Your task to perform on an android device: Do I have any events tomorrow? Image 0: 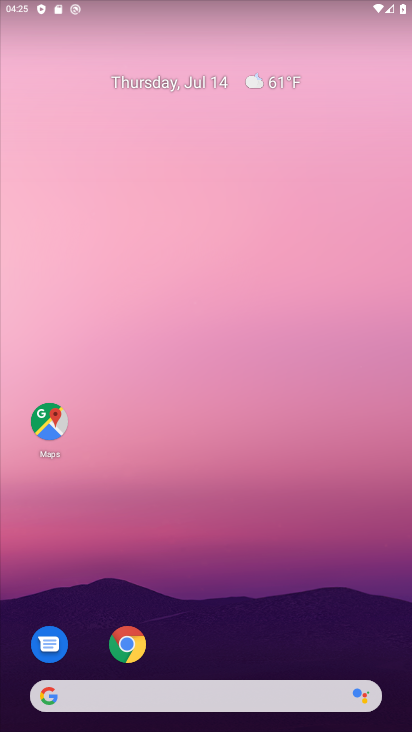
Step 0: drag from (214, 636) to (140, 3)
Your task to perform on an android device: Do I have any events tomorrow? Image 1: 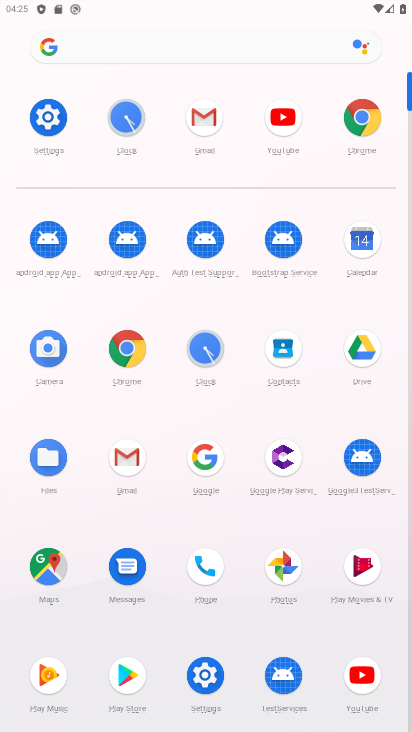
Step 1: click (360, 239)
Your task to perform on an android device: Do I have any events tomorrow? Image 2: 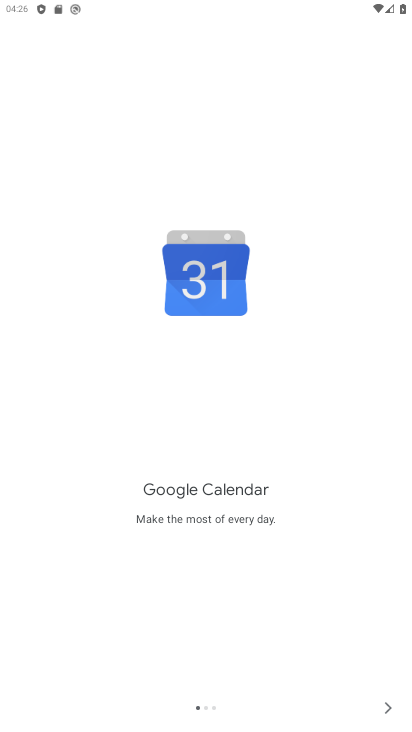
Step 2: click (395, 703)
Your task to perform on an android device: Do I have any events tomorrow? Image 3: 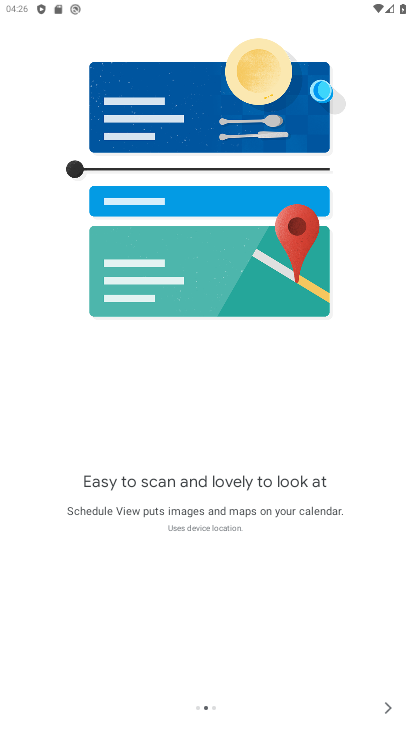
Step 3: click (392, 697)
Your task to perform on an android device: Do I have any events tomorrow? Image 4: 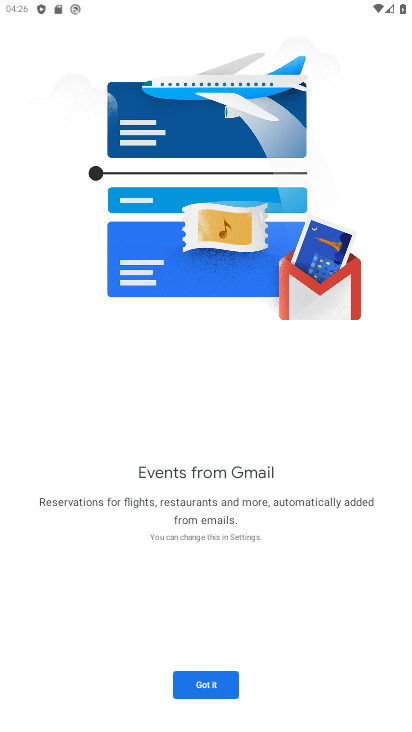
Step 4: click (195, 704)
Your task to perform on an android device: Do I have any events tomorrow? Image 5: 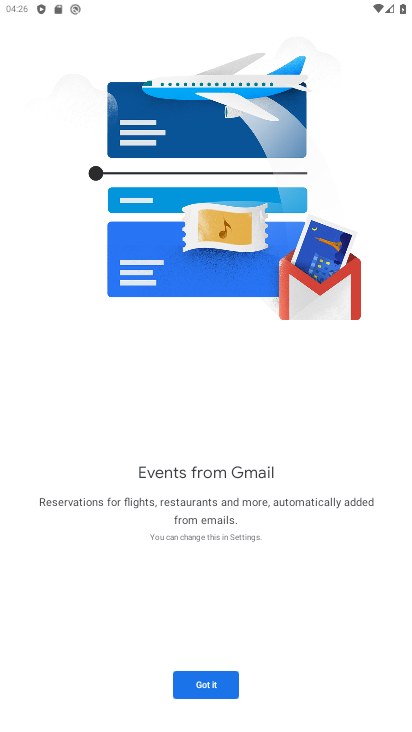
Step 5: click (194, 689)
Your task to perform on an android device: Do I have any events tomorrow? Image 6: 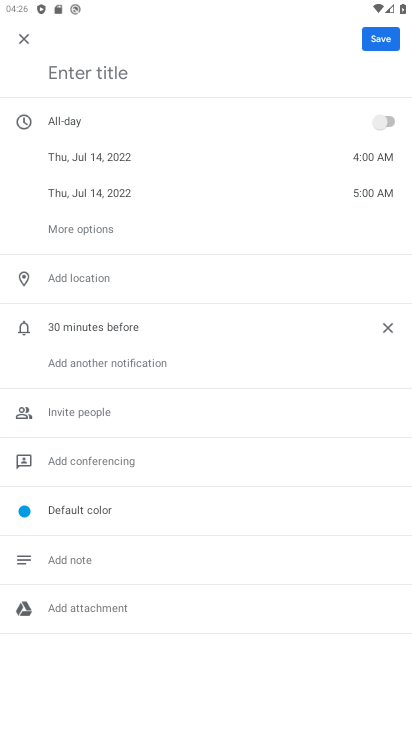
Step 6: press home button
Your task to perform on an android device: Do I have any events tomorrow? Image 7: 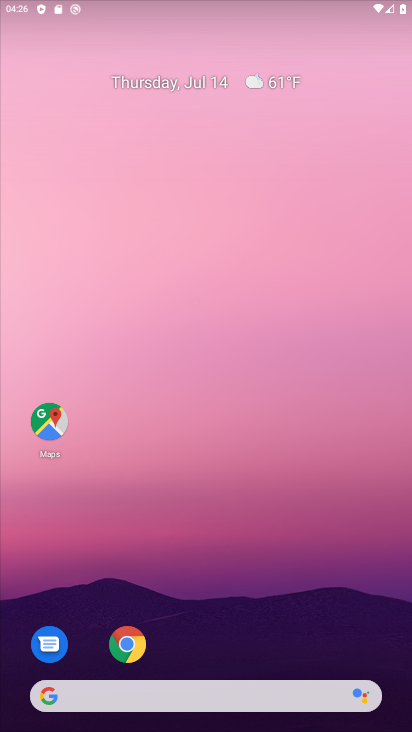
Step 7: drag from (323, 631) to (289, 158)
Your task to perform on an android device: Do I have any events tomorrow? Image 8: 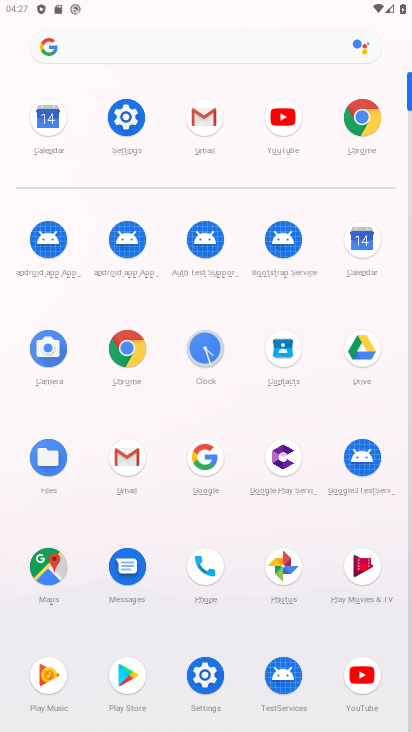
Step 8: click (386, 225)
Your task to perform on an android device: Do I have any events tomorrow? Image 9: 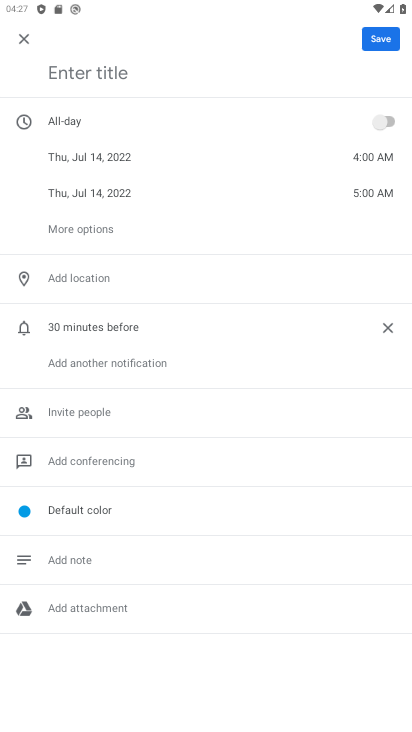
Step 9: click (28, 41)
Your task to perform on an android device: Do I have any events tomorrow? Image 10: 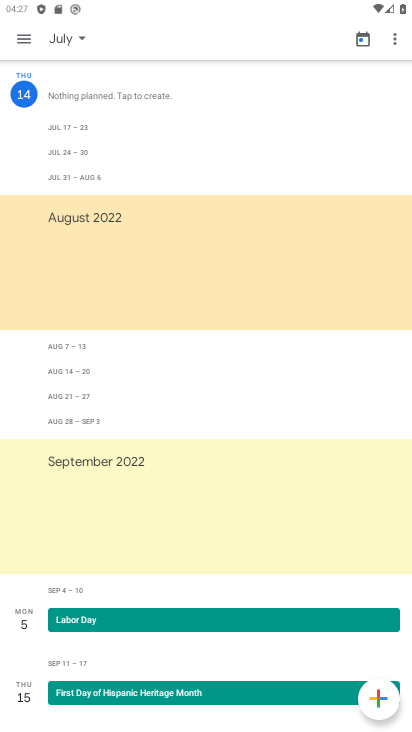
Step 10: click (76, 47)
Your task to perform on an android device: Do I have any events tomorrow? Image 11: 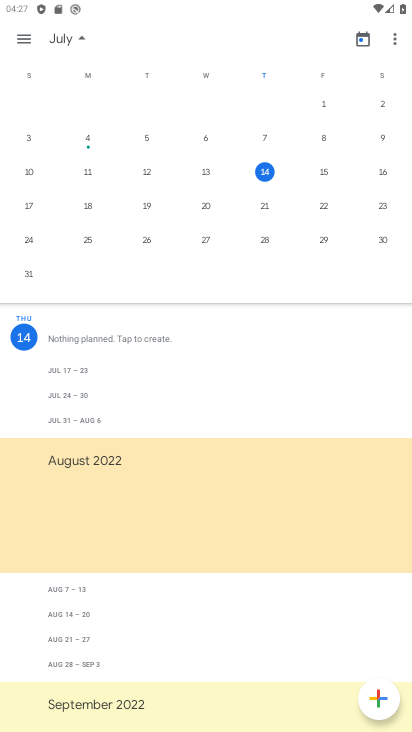
Step 11: click (322, 170)
Your task to perform on an android device: Do I have any events tomorrow? Image 12: 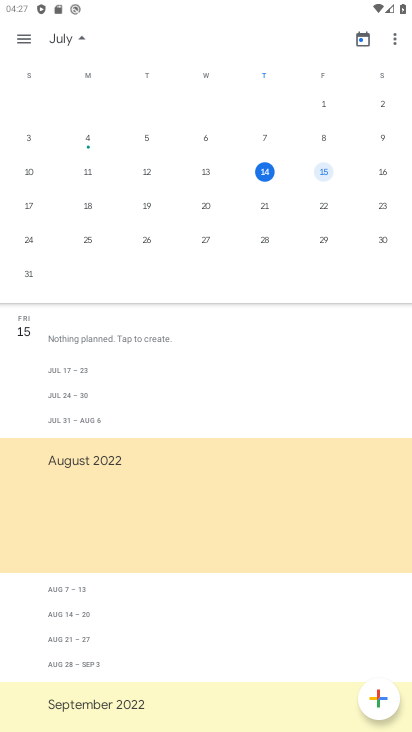
Step 12: click (89, 40)
Your task to perform on an android device: Do I have any events tomorrow? Image 13: 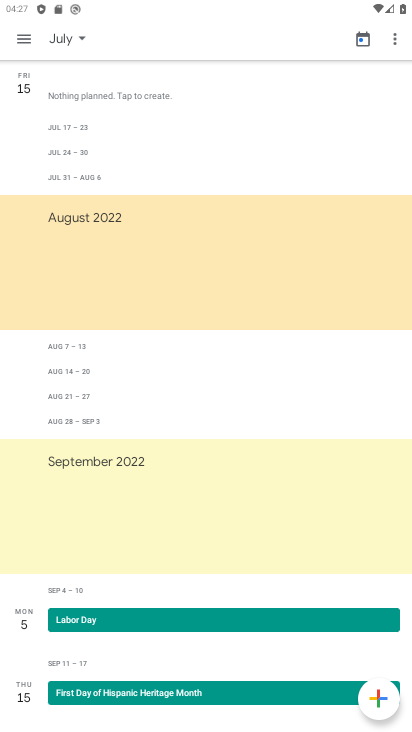
Step 13: task complete